Your task to perform on an android device: open chrome privacy settings Image 0: 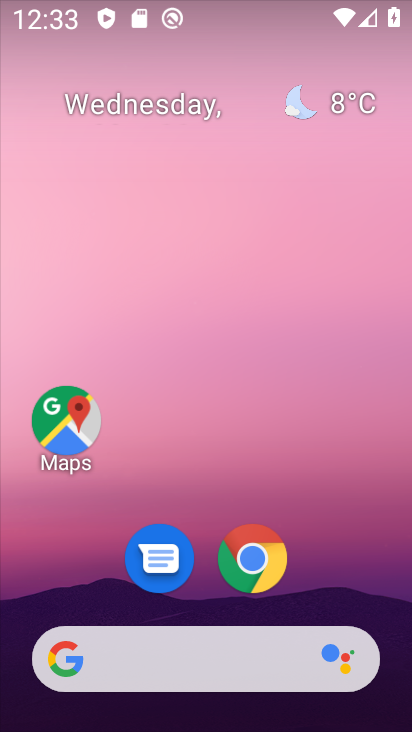
Step 0: drag from (290, 407) to (214, 24)
Your task to perform on an android device: open chrome privacy settings Image 1: 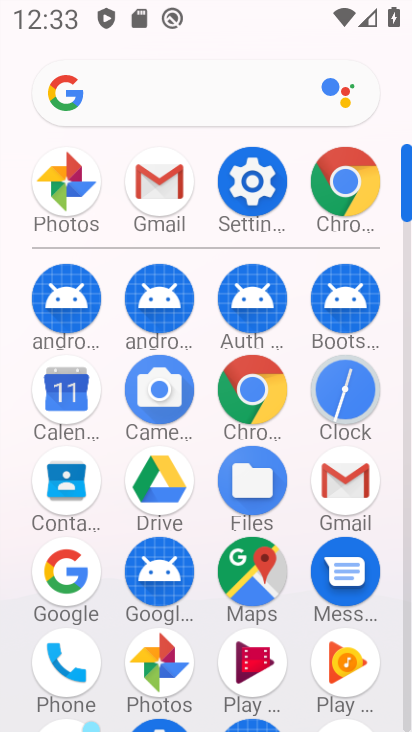
Step 1: click (341, 175)
Your task to perform on an android device: open chrome privacy settings Image 2: 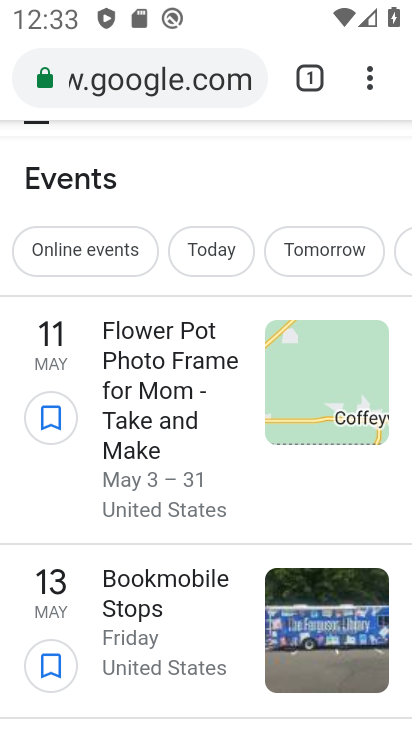
Step 2: drag from (362, 76) to (129, 615)
Your task to perform on an android device: open chrome privacy settings Image 3: 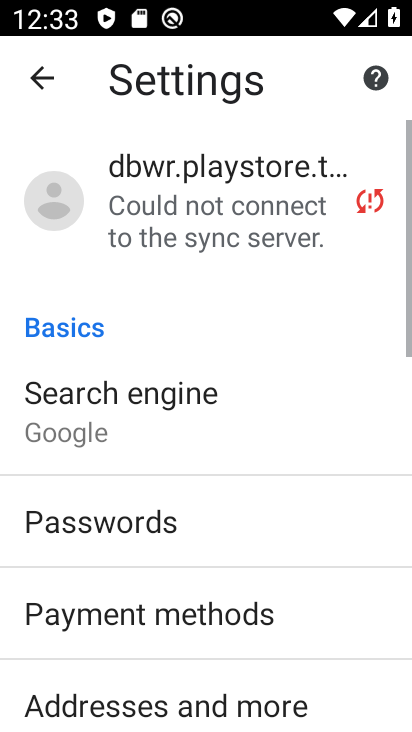
Step 3: drag from (259, 607) to (261, 179)
Your task to perform on an android device: open chrome privacy settings Image 4: 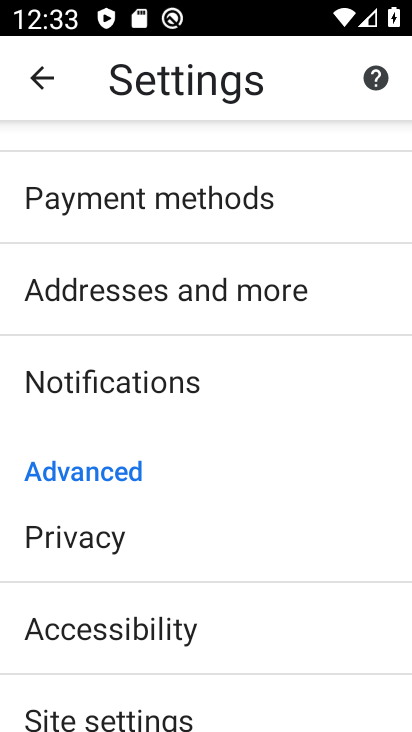
Step 4: click (130, 531)
Your task to perform on an android device: open chrome privacy settings Image 5: 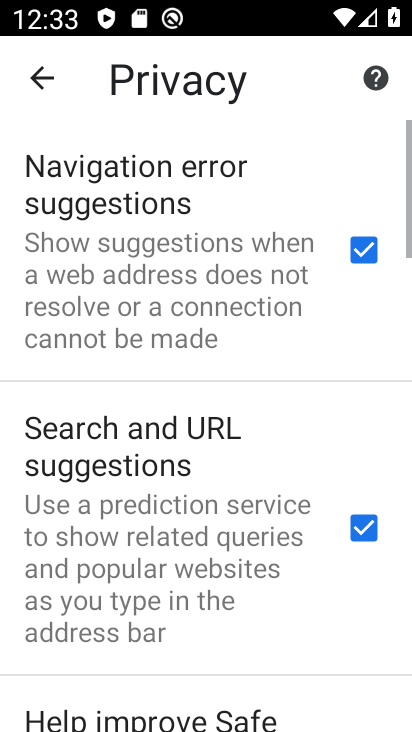
Step 5: task complete